Your task to perform on an android device: clear all cookies in the chrome app Image 0: 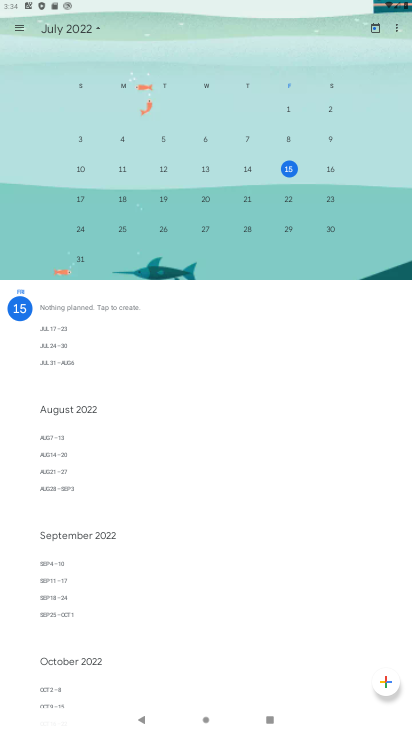
Step 0: press home button
Your task to perform on an android device: clear all cookies in the chrome app Image 1: 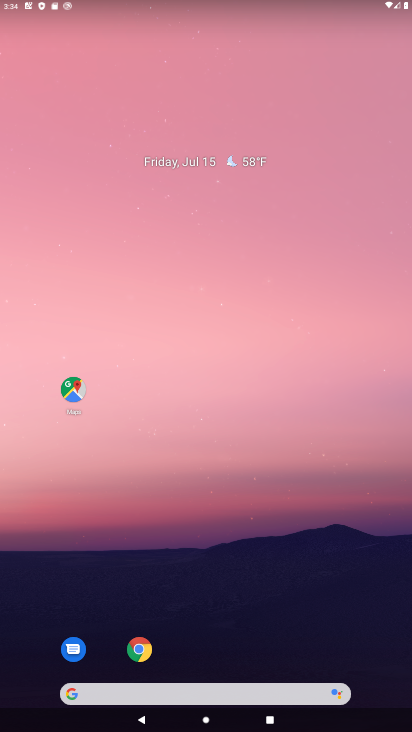
Step 1: click (135, 649)
Your task to perform on an android device: clear all cookies in the chrome app Image 2: 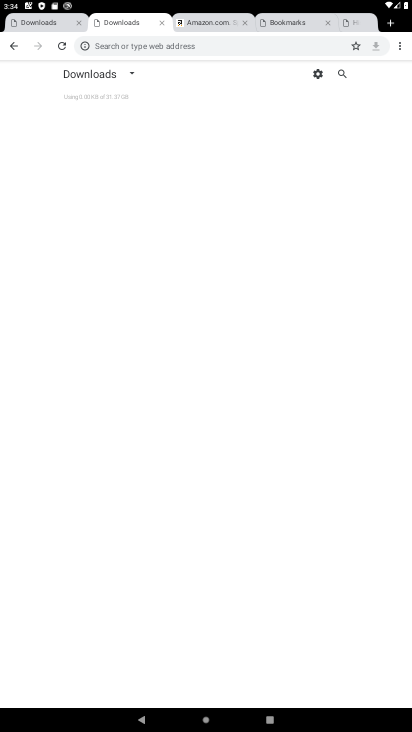
Step 2: click (401, 50)
Your task to perform on an android device: clear all cookies in the chrome app Image 3: 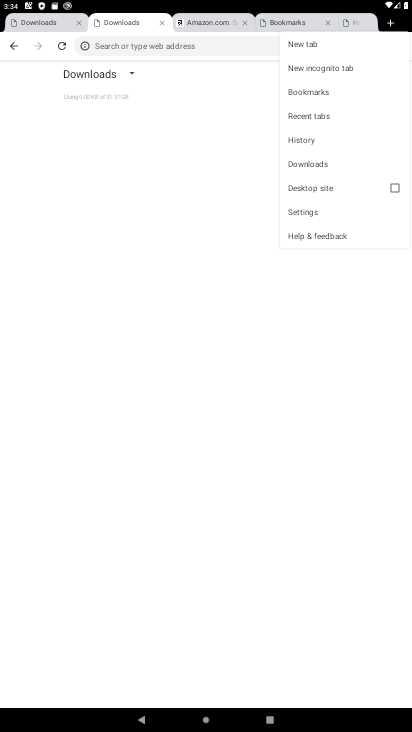
Step 3: click (296, 133)
Your task to perform on an android device: clear all cookies in the chrome app Image 4: 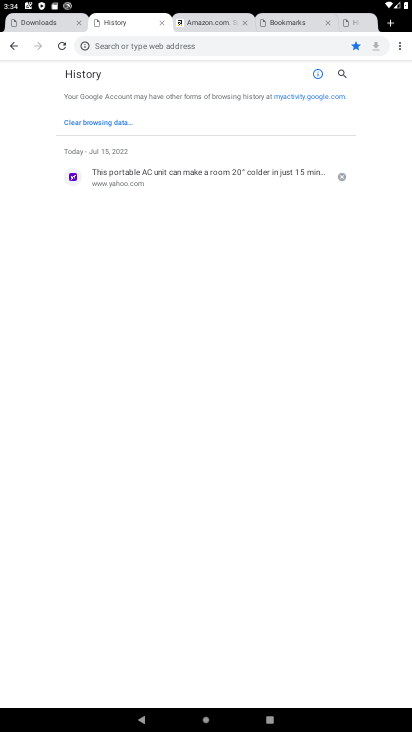
Step 4: click (94, 122)
Your task to perform on an android device: clear all cookies in the chrome app Image 5: 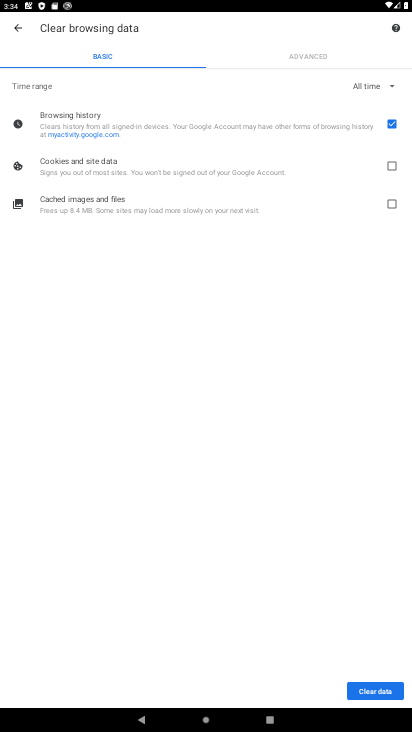
Step 5: click (390, 166)
Your task to perform on an android device: clear all cookies in the chrome app Image 6: 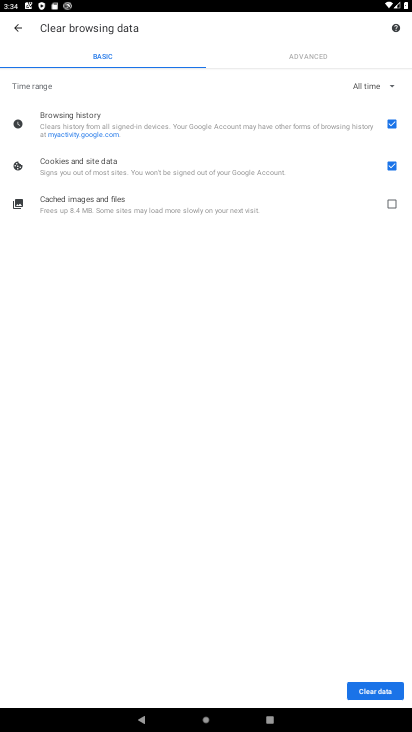
Step 6: click (389, 121)
Your task to perform on an android device: clear all cookies in the chrome app Image 7: 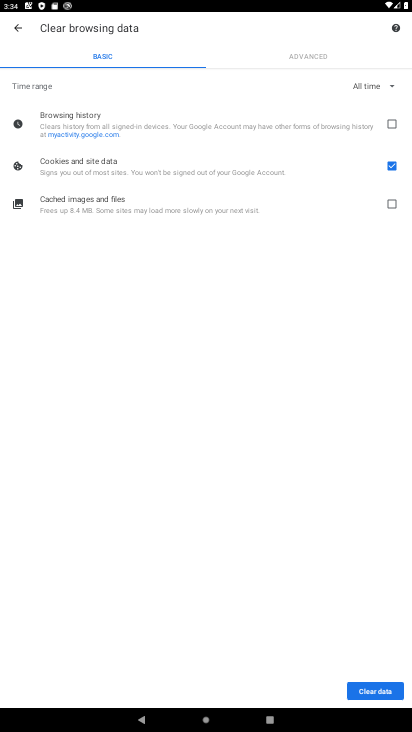
Step 7: click (367, 694)
Your task to perform on an android device: clear all cookies in the chrome app Image 8: 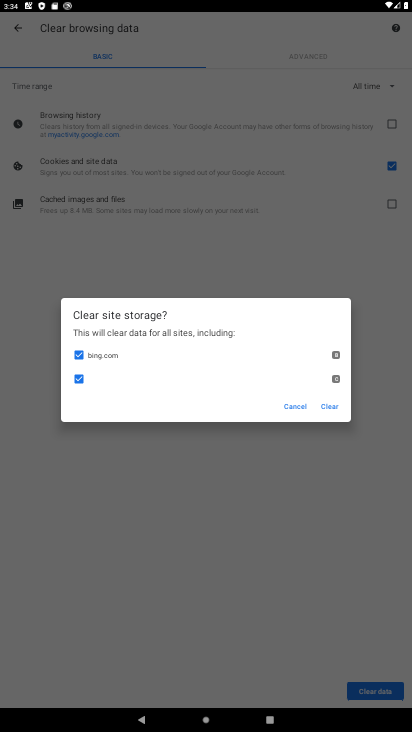
Step 8: click (326, 403)
Your task to perform on an android device: clear all cookies in the chrome app Image 9: 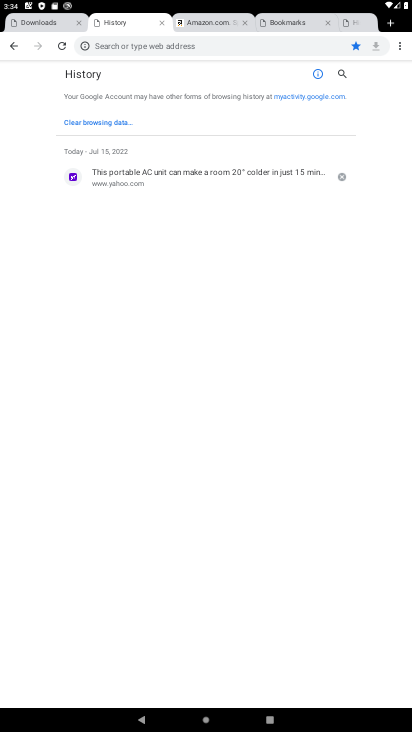
Step 9: task complete